Your task to perform on an android device: move a message to another label in the gmail app Image 0: 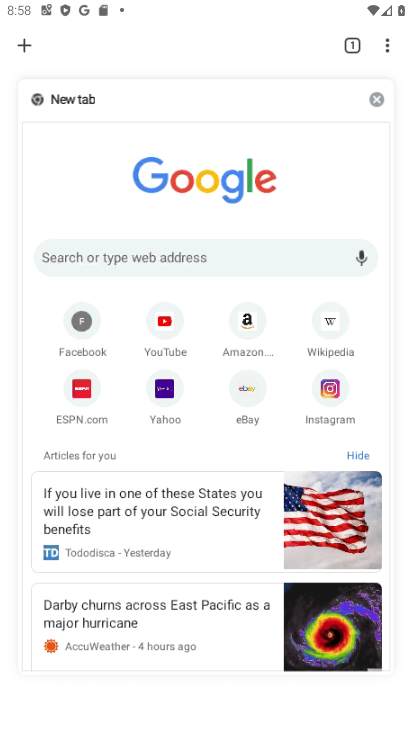
Step 0: press home button
Your task to perform on an android device: move a message to another label in the gmail app Image 1: 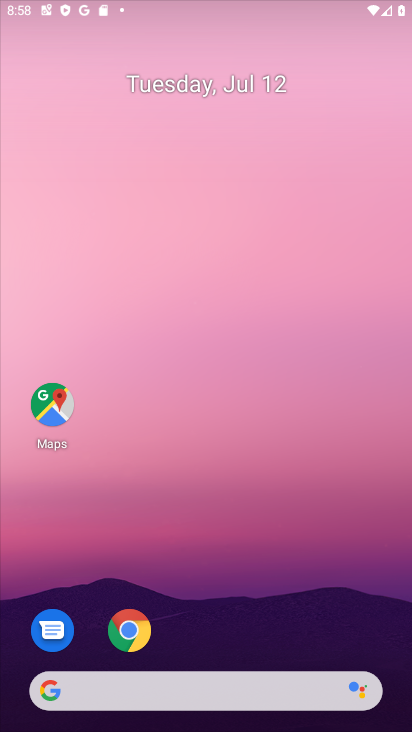
Step 1: drag from (212, 642) to (230, 177)
Your task to perform on an android device: move a message to another label in the gmail app Image 2: 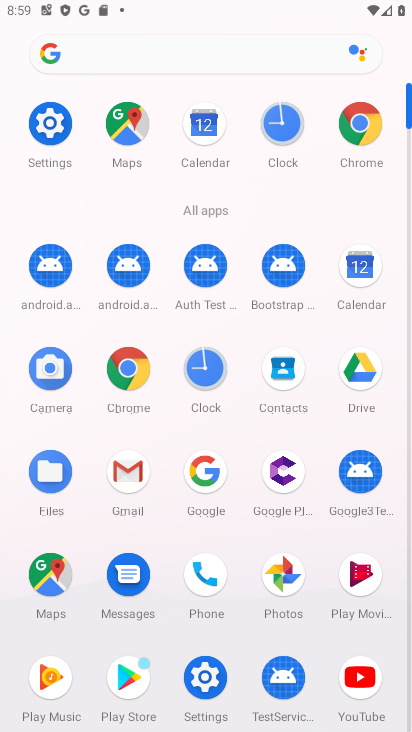
Step 2: click (138, 472)
Your task to perform on an android device: move a message to another label in the gmail app Image 3: 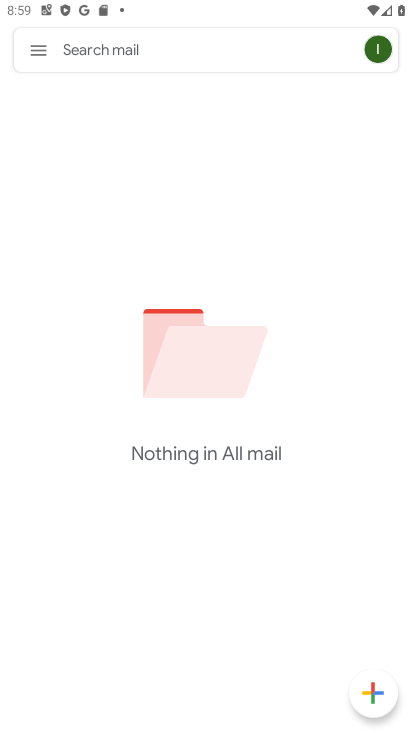
Step 3: click (38, 46)
Your task to perform on an android device: move a message to another label in the gmail app Image 4: 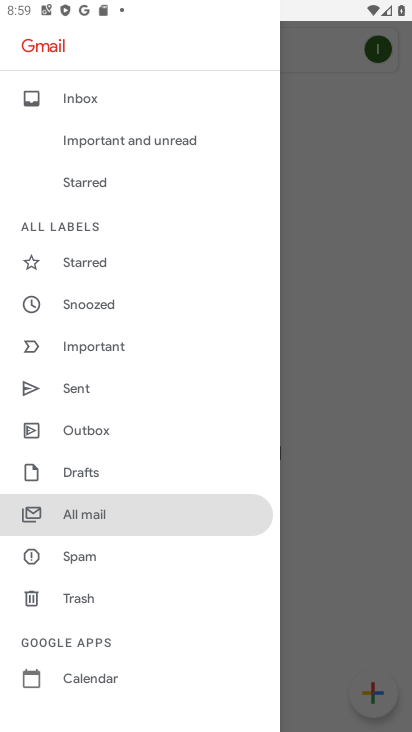
Step 4: click (114, 514)
Your task to perform on an android device: move a message to another label in the gmail app Image 5: 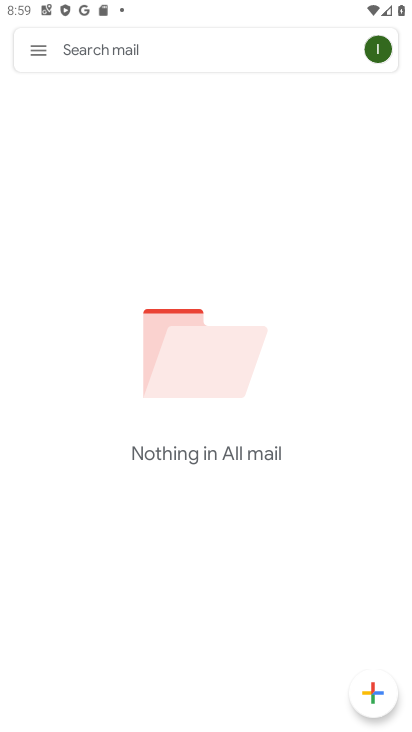
Step 5: task complete